Your task to perform on an android device: Go to wifi settings Image 0: 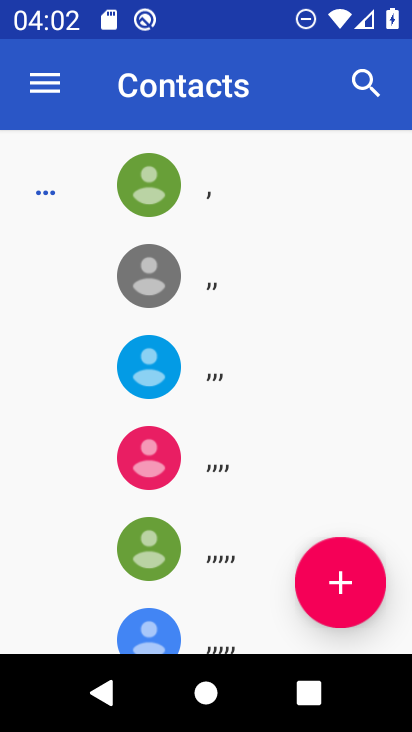
Step 0: press back button
Your task to perform on an android device: Go to wifi settings Image 1: 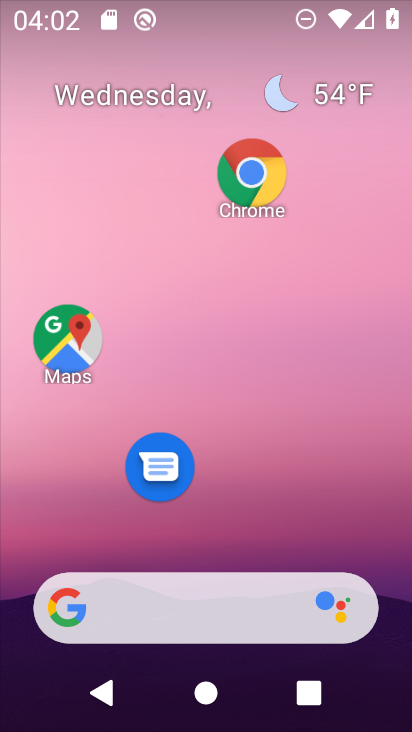
Step 1: drag from (102, 17) to (152, 448)
Your task to perform on an android device: Go to wifi settings Image 2: 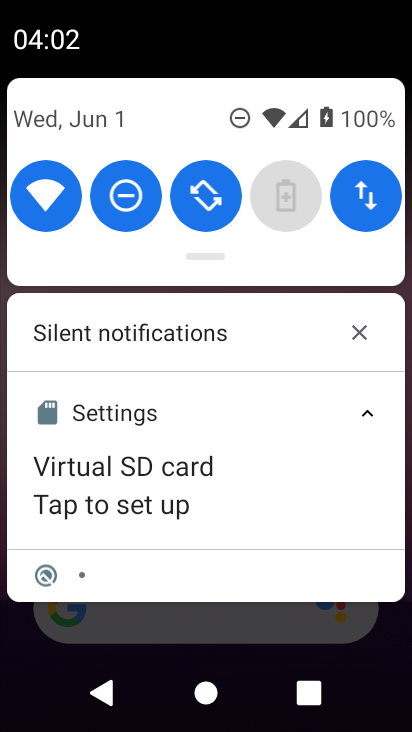
Step 2: click (41, 189)
Your task to perform on an android device: Go to wifi settings Image 3: 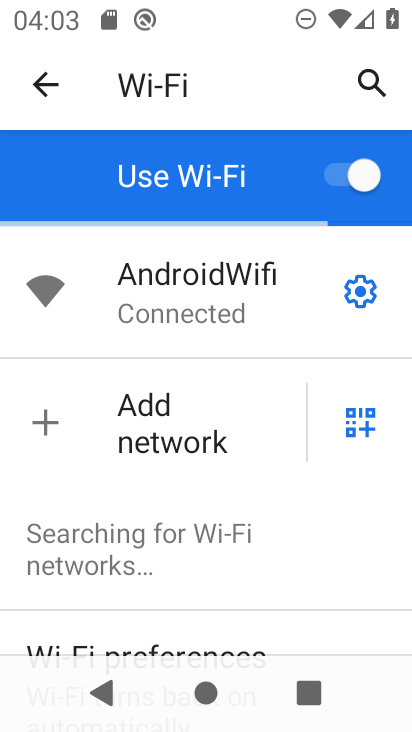
Step 3: task complete